Your task to perform on an android device: Open Maps and search for coffee Image 0: 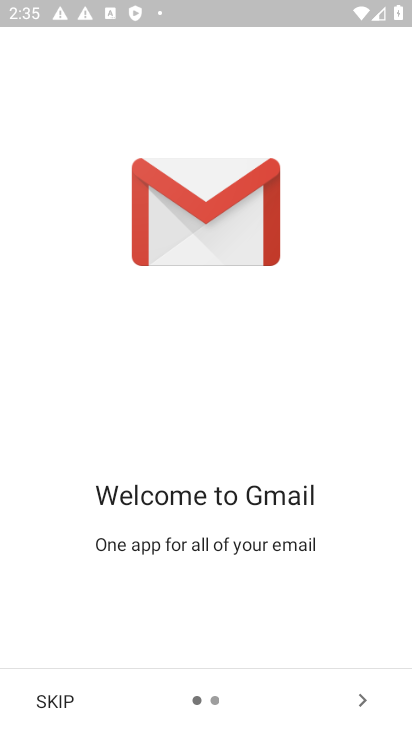
Step 0: click (43, 699)
Your task to perform on an android device: Open Maps and search for coffee Image 1: 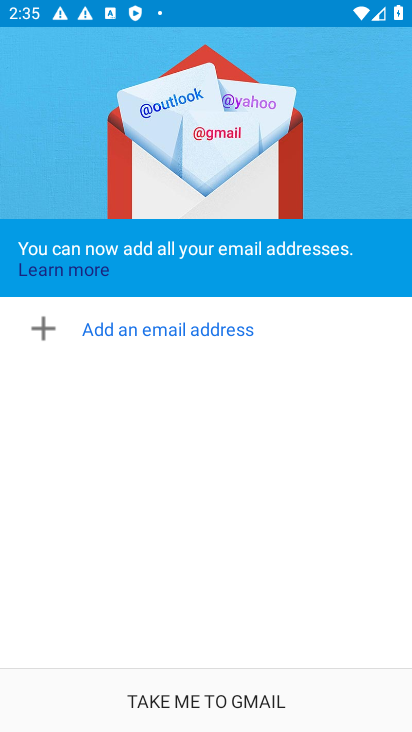
Step 1: press home button
Your task to perform on an android device: Open Maps and search for coffee Image 2: 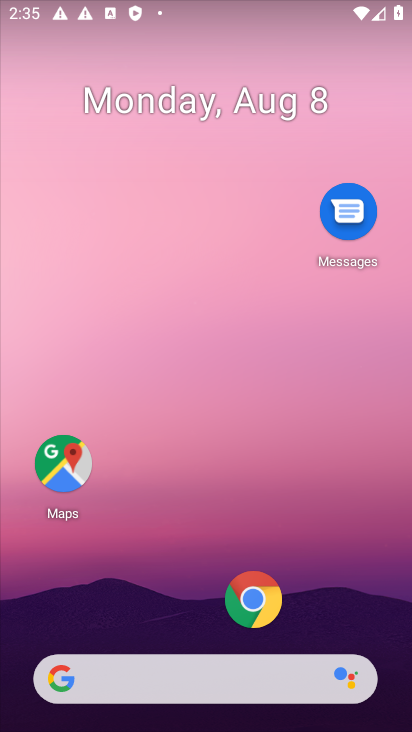
Step 2: click (53, 480)
Your task to perform on an android device: Open Maps and search for coffee Image 3: 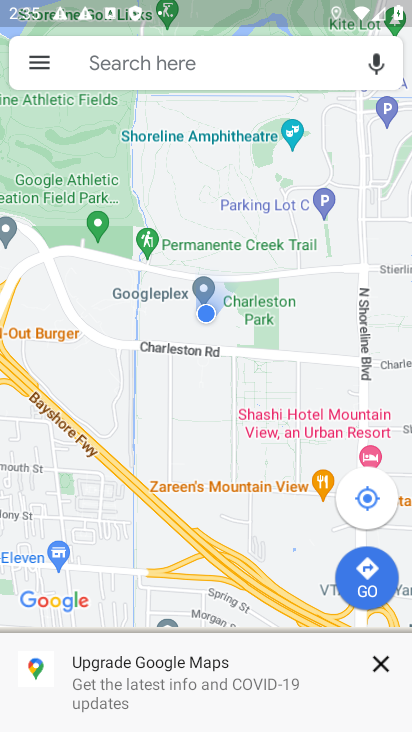
Step 3: click (145, 64)
Your task to perform on an android device: Open Maps and search for coffee Image 4: 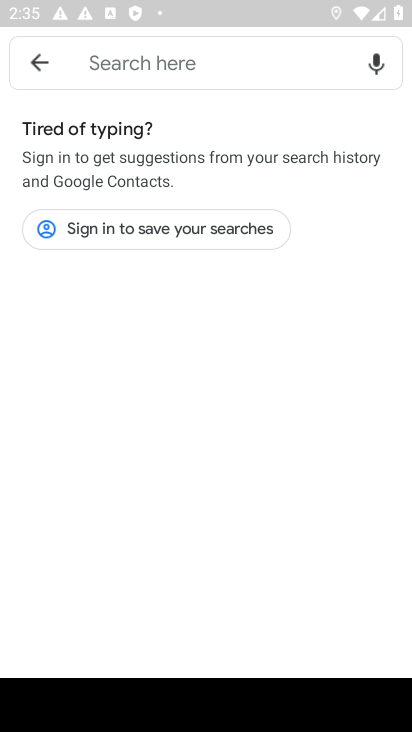
Step 4: type "coffee"
Your task to perform on an android device: Open Maps and search for coffee Image 5: 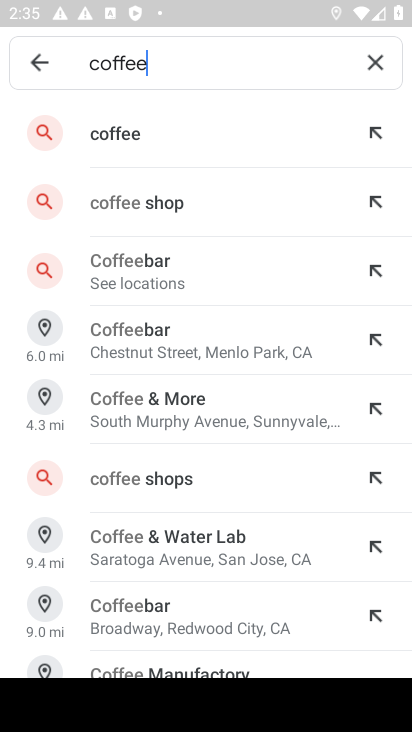
Step 5: click (128, 126)
Your task to perform on an android device: Open Maps and search for coffee Image 6: 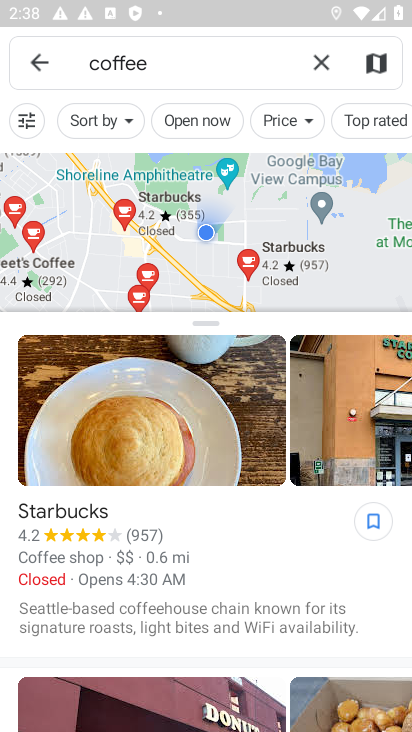
Step 6: task complete